Your task to perform on an android device: See recent photos Image 0: 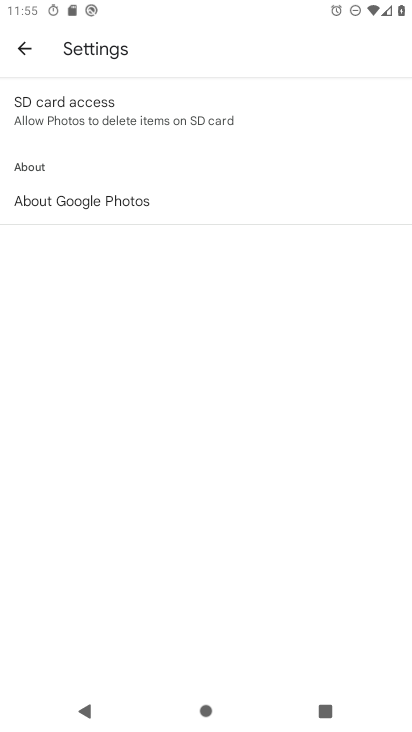
Step 0: press home button
Your task to perform on an android device: See recent photos Image 1: 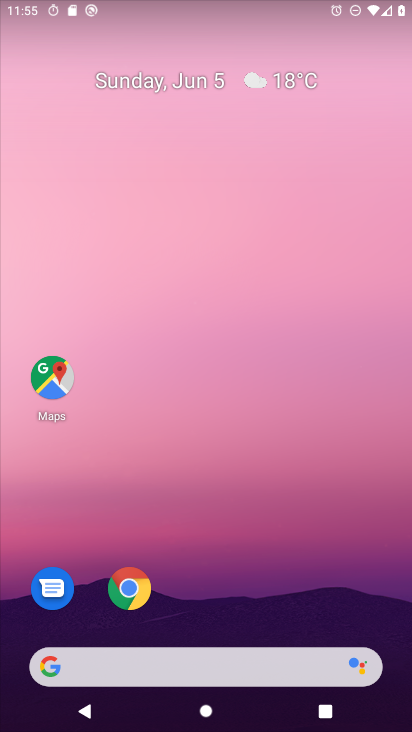
Step 1: drag from (306, 604) to (299, 158)
Your task to perform on an android device: See recent photos Image 2: 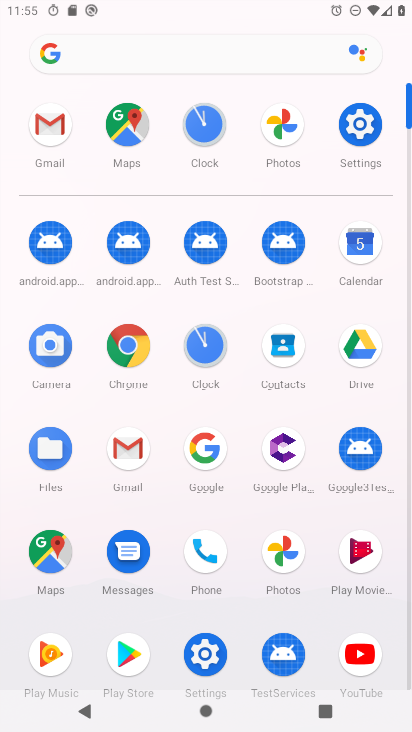
Step 2: click (287, 115)
Your task to perform on an android device: See recent photos Image 3: 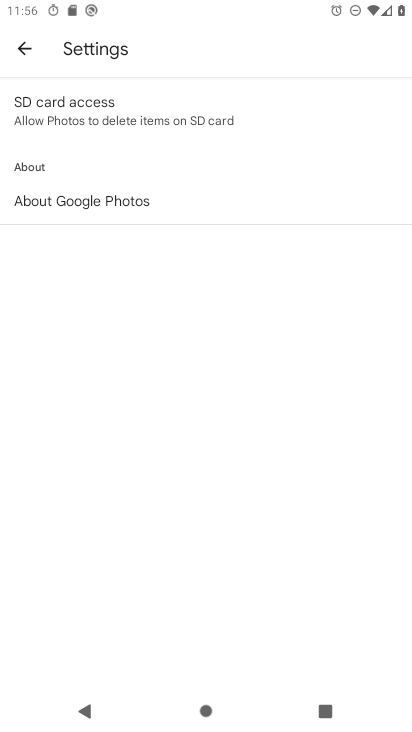
Step 3: press back button
Your task to perform on an android device: See recent photos Image 4: 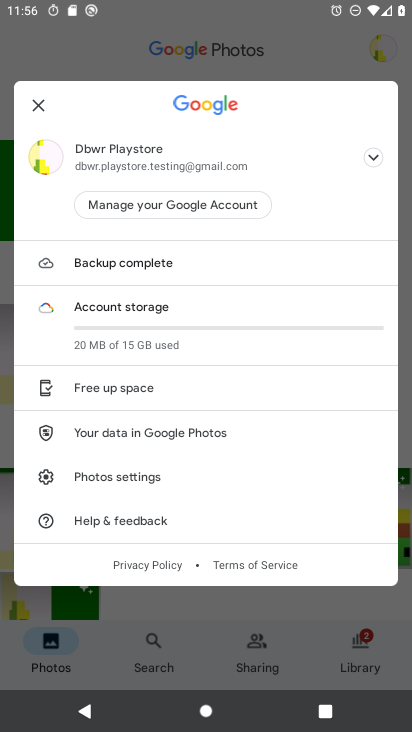
Step 4: press back button
Your task to perform on an android device: See recent photos Image 5: 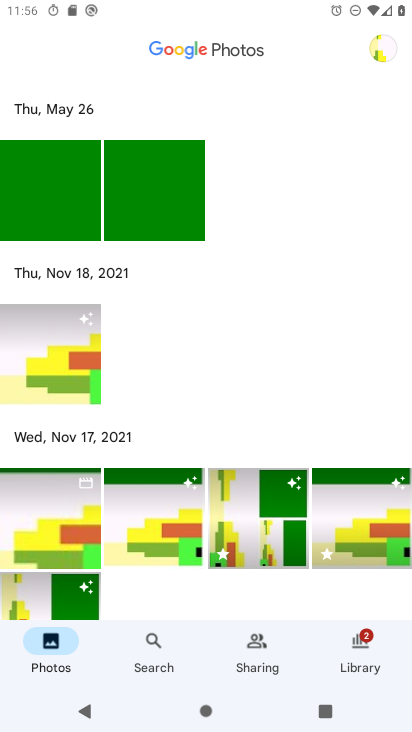
Step 5: click (61, 207)
Your task to perform on an android device: See recent photos Image 6: 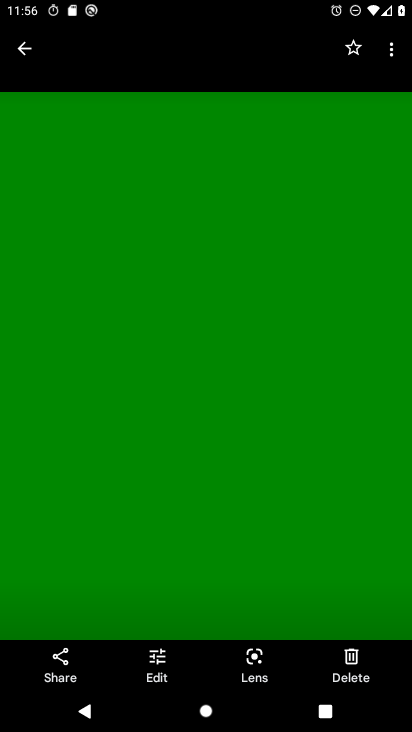
Step 6: task complete